Your task to perform on an android device: Open Yahoo.com Image 0: 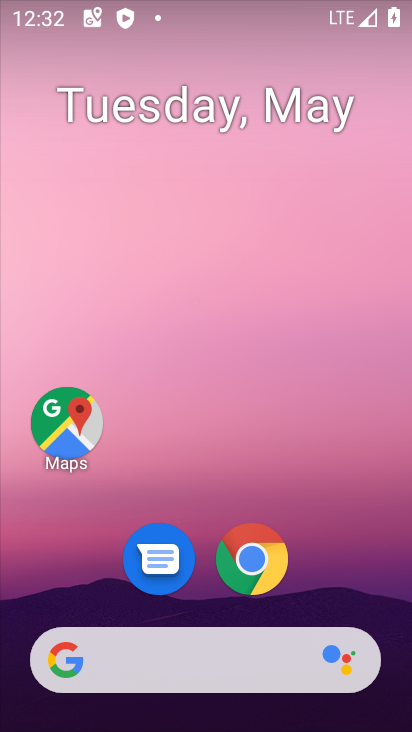
Step 0: click (275, 569)
Your task to perform on an android device: Open Yahoo.com Image 1: 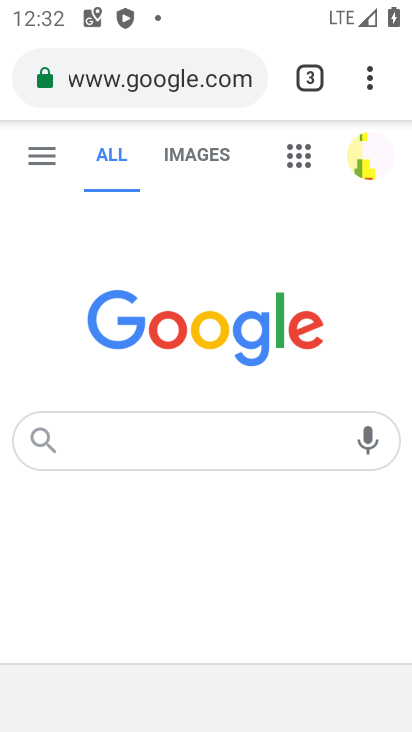
Step 1: click (183, 63)
Your task to perform on an android device: Open Yahoo.com Image 2: 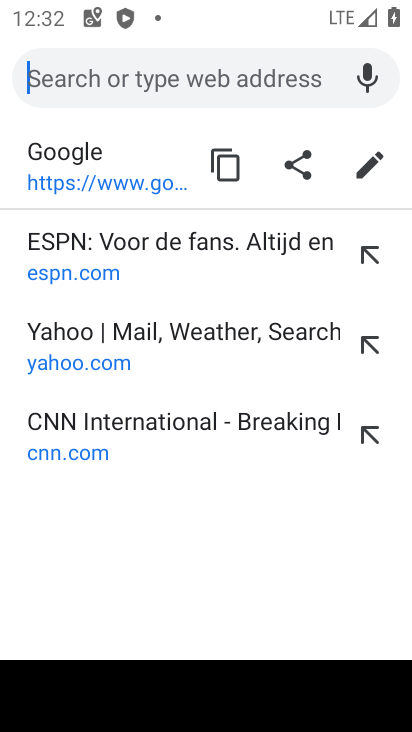
Step 2: click (119, 335)
Your task to perform on an android device: Open Yahoo.com Image 3: 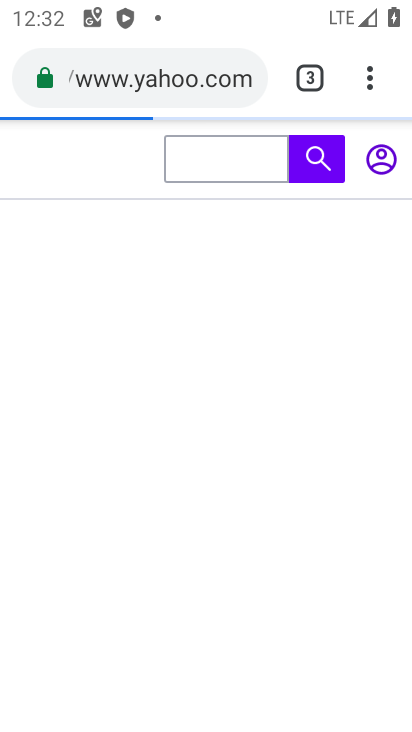
Step 3: task complete